Your task to perform on an android device: toggle data saver in the chrome app Image 0: 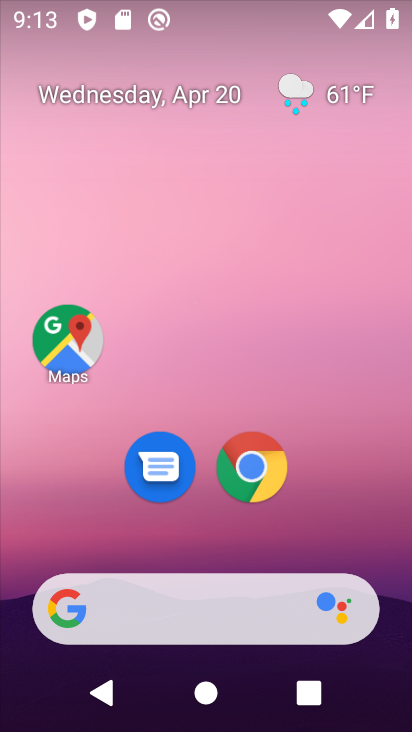
Step 0: drag from (309, 498) to (303, 87)
Your task to perform on an android device: toggle data saver in the chrome app Image 1: 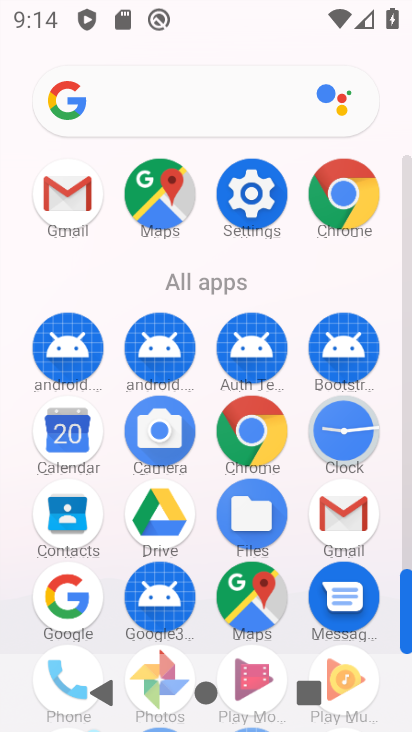
Step 1: click (339, 202)
Your task to perform on an android device: toggle data saver in the chrome app Image 2: 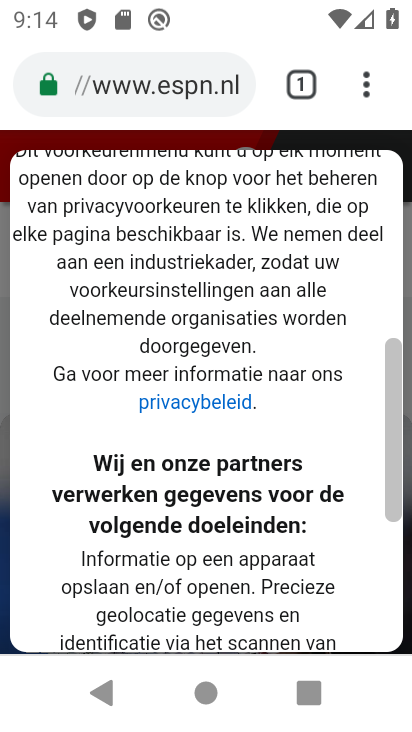
Step 2: drag from (371, 75) to (118, 508)
Your task to perform on an android device: toggle data saver in the chrome app Image 3: 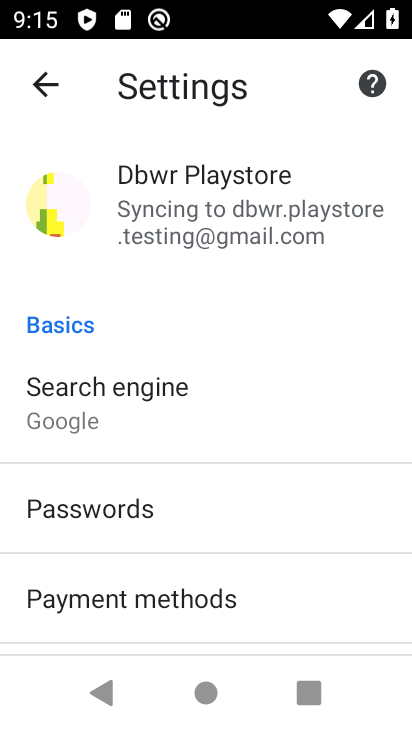
Step 3: drag from (260, 531) to (308, 44)
Your task to perform on an android device: toggle data saver in the chrome app Image 4: 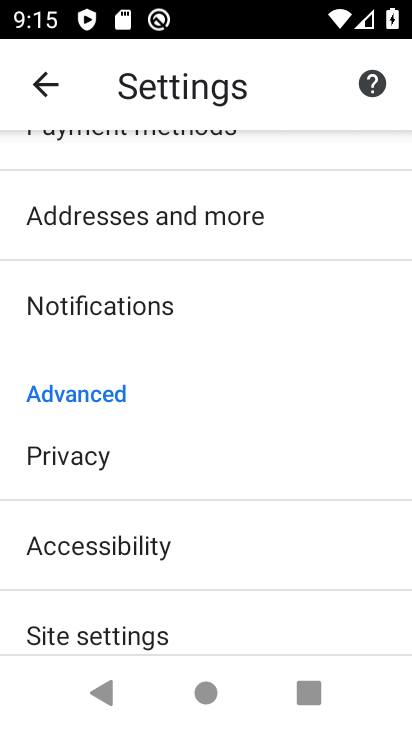
Step 4: drag from (157, 588) to (247, 314)
Your task to perform on an android device: toggle data saver in the chrome app Image 5: 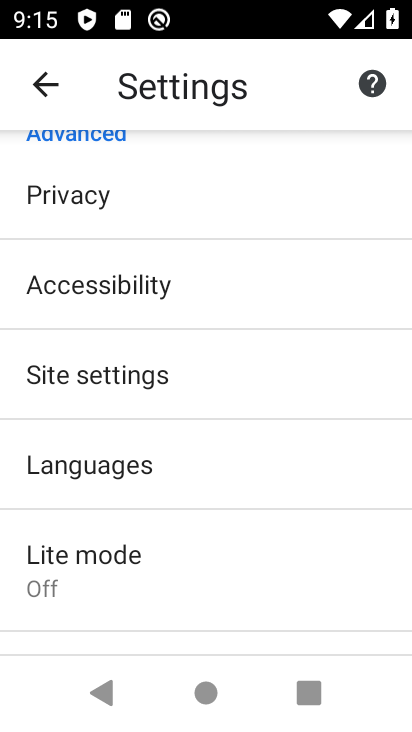
Step 5: click (102, 555)
Your task to perform on an android device: toggle data saver in the chrome app Image 6: 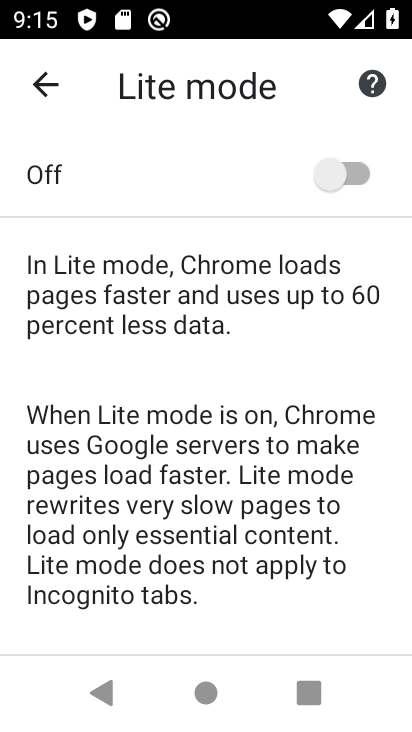
Step 6: click (311, 174)
Your task to perform on an android device: toggle data saver in the chrome app Image 7: 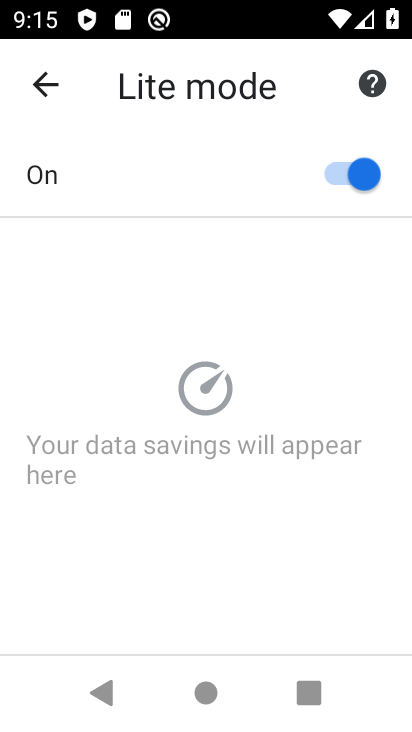
Step 7: task complete